Your task to perform on an android device: Check the news Image 0: 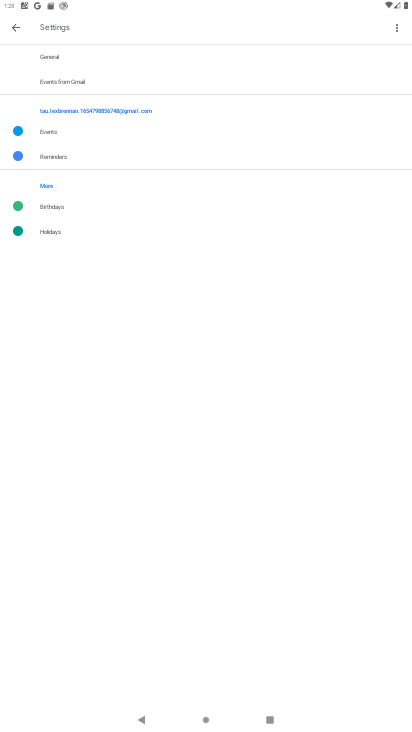
Step 0: press home button
Your task to perform on an android device: Check the news Image 1: 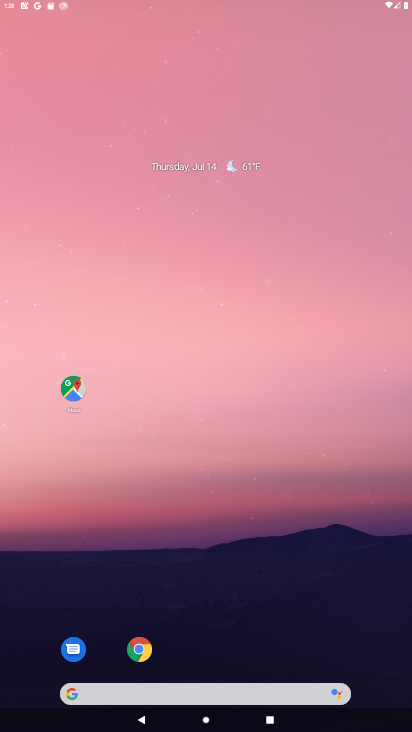
Step 1: drag from (250, 642) to (251, 5)
Your task to perform on an android device: Check the news Image 2: 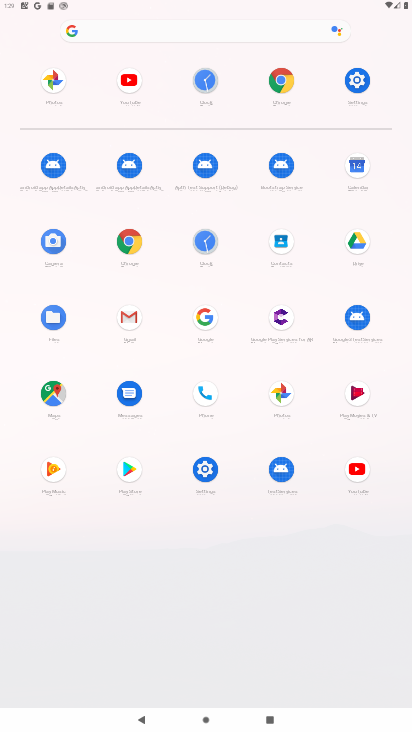
Step 2: click (131, 242)
Your task to perform on an android device: Check the news Image 3: 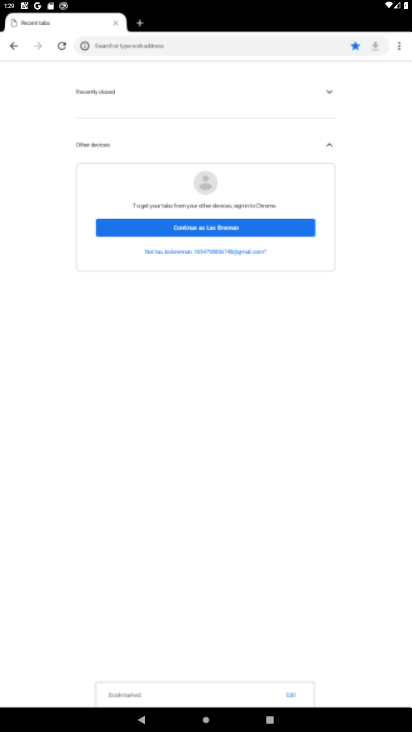
Step 3: click (164, 38)
Your task to perform on an android device: Check the news Image 4: 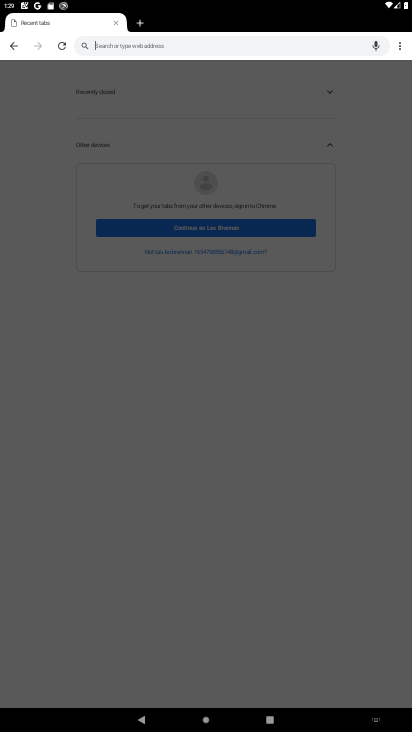
Step 4: type "check the news"
Your task to perform on an android device: Check the news Image 5: 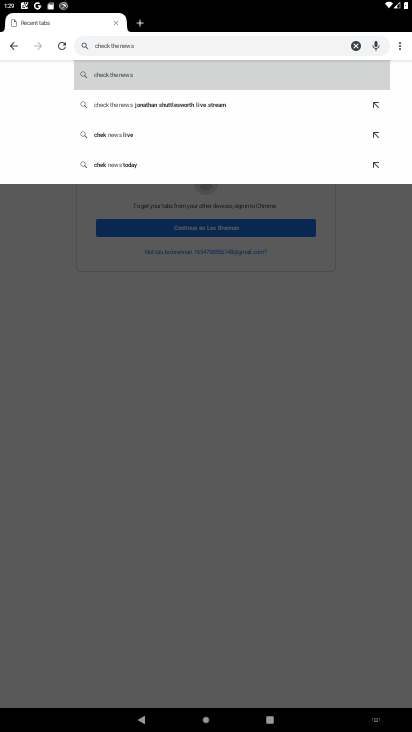
Step 5: click (222, 81)
Your task to perform on an android device: Check the news Image 6: 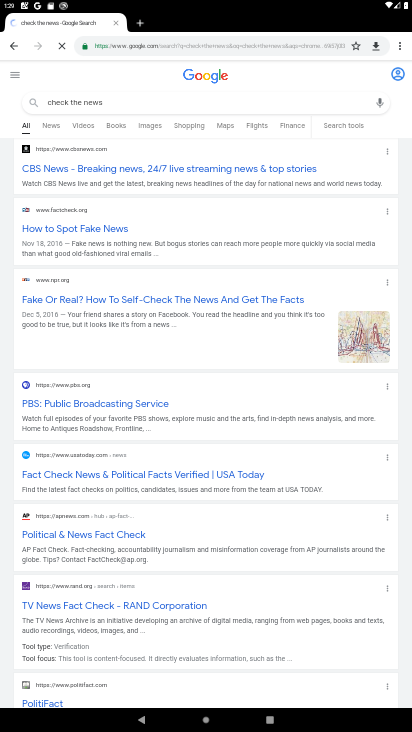
Step 6: task complete